Your task to perform on an android device: turn off wifi Image 0: 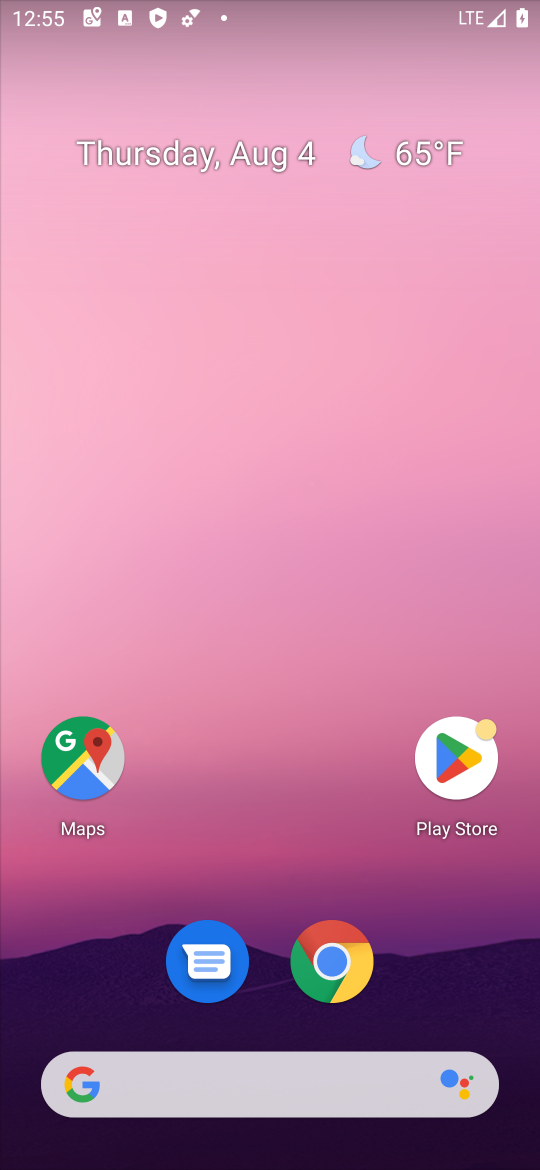
Step 0: drag from (280, 796) to (417, 24)
Your task to perform on an android device: turn off wifi Image 1: 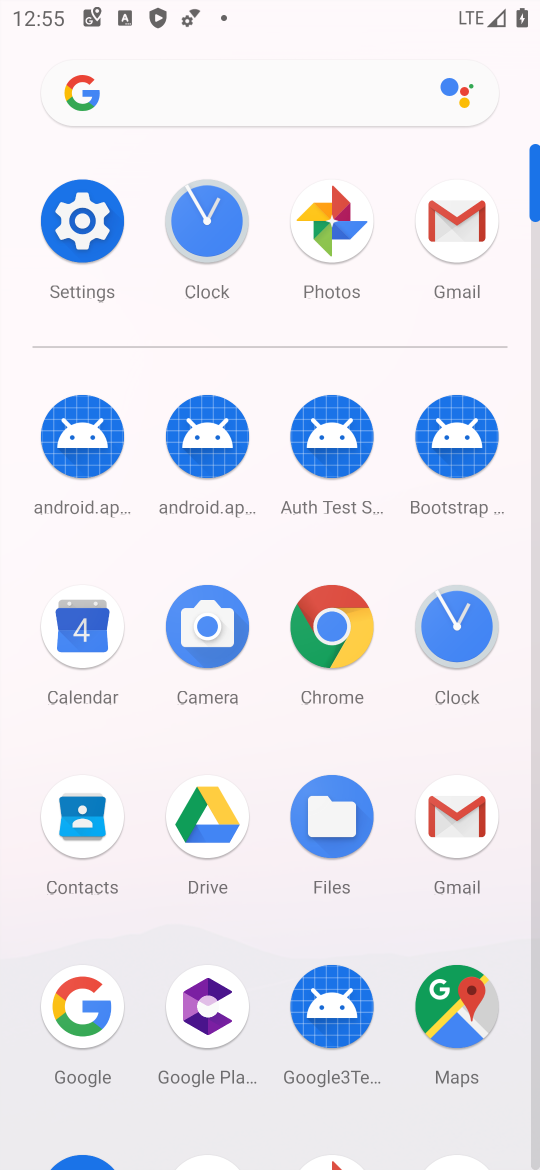
Step 1: click (92, 222)
Your task to perform on an android device: turn off wifi Image 2: 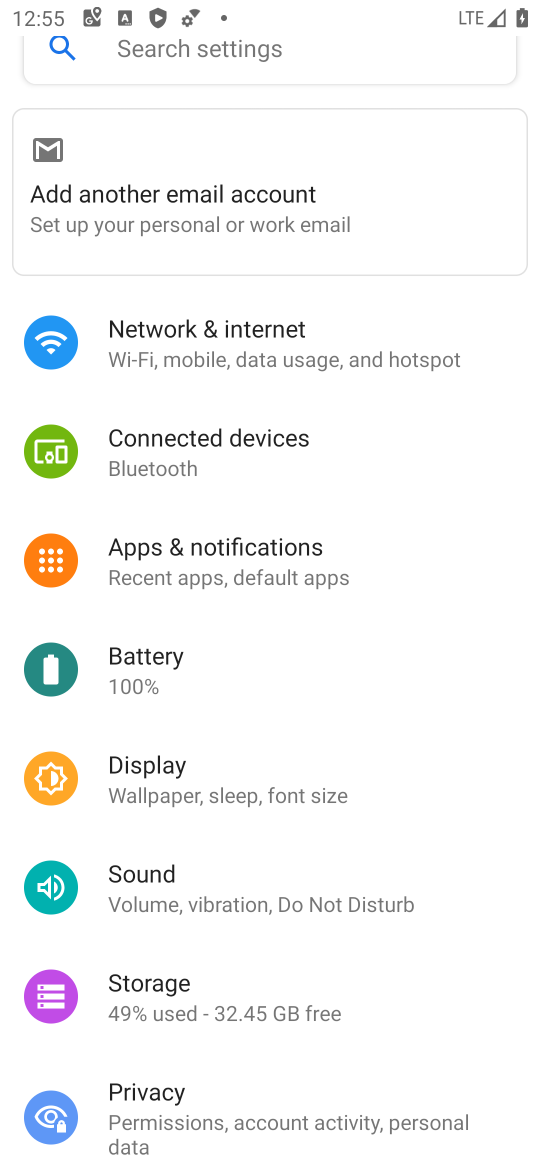
Step 2: click (167, 336)
Your task to perform on an android device: turn off wifi Image 3: 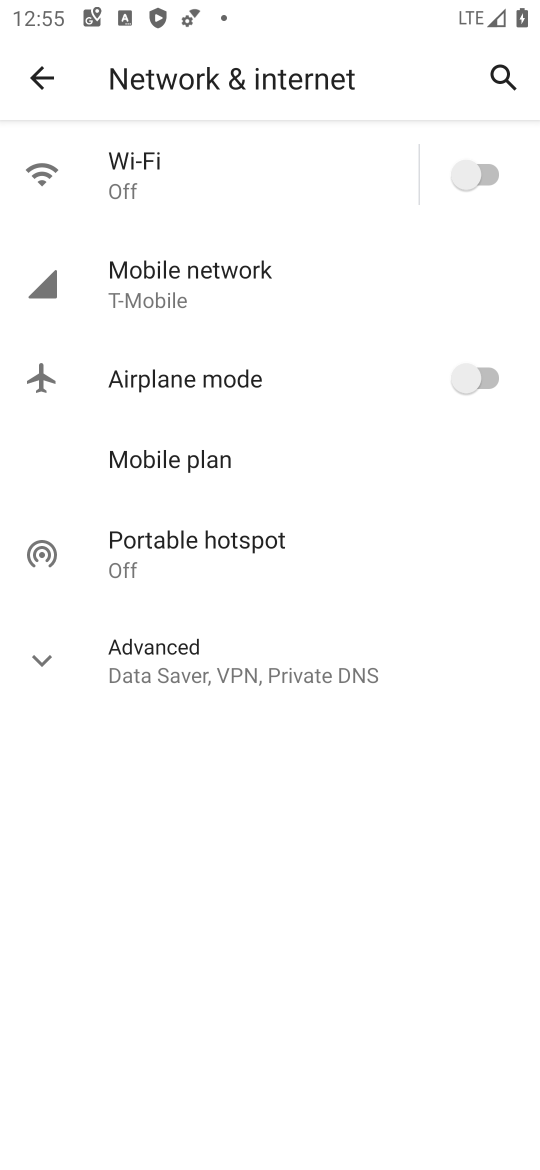
Step 3: task complete